Your task to perform on an android device: open wifi settings Image 0: 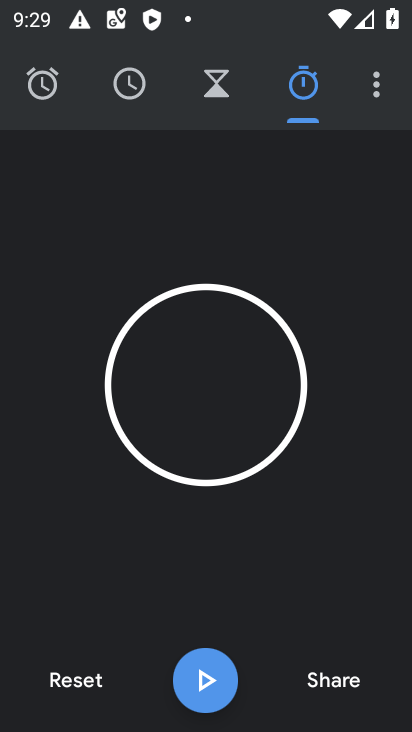
Step 0: press home button
Your task to perform on an android device: open wifi settings Image 1: 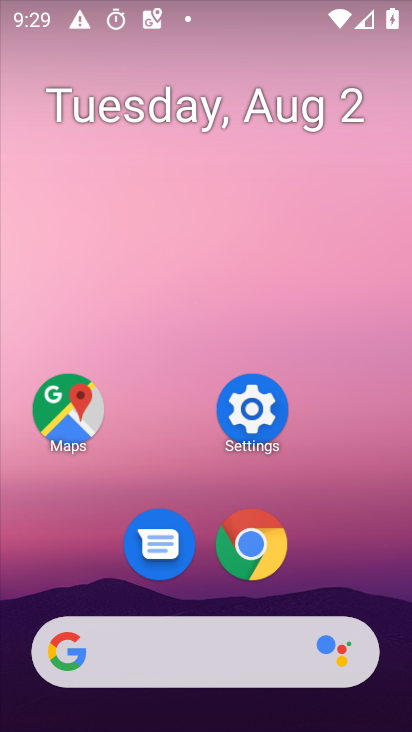
Step 1: click (265, 419)
Your task to perform on an android device: open wifi settings Image 2: 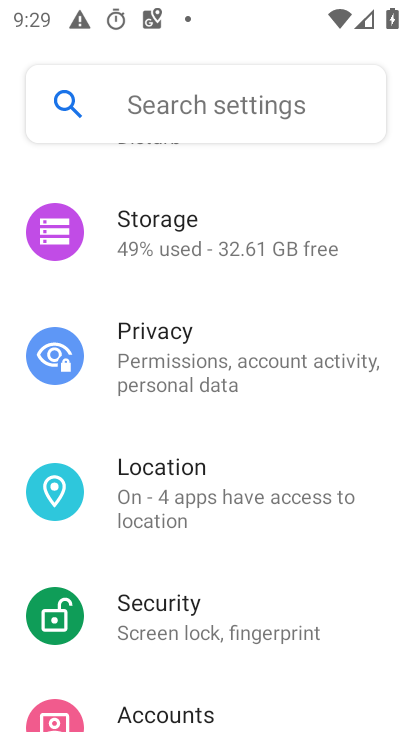
Step 2: drag from (328, 182) to (298, 627)
Your task to perform on an android device: open wifi settings Image 3: 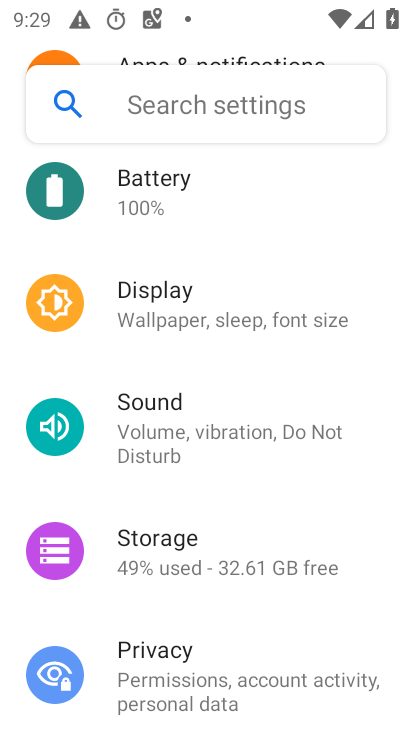
Step 3: drag from (299, 212) to (278, 648)
Your task to perform on an android device: open wifi settings Image 4: 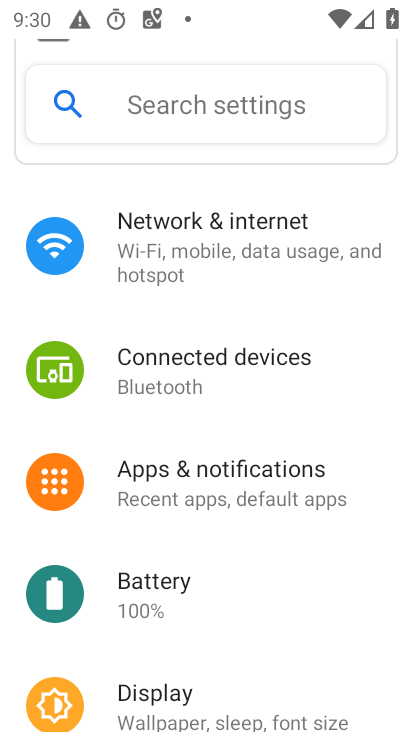
Step 4: click (247, 251)
Your task to perform on an android device: open wifi settings Image 5: 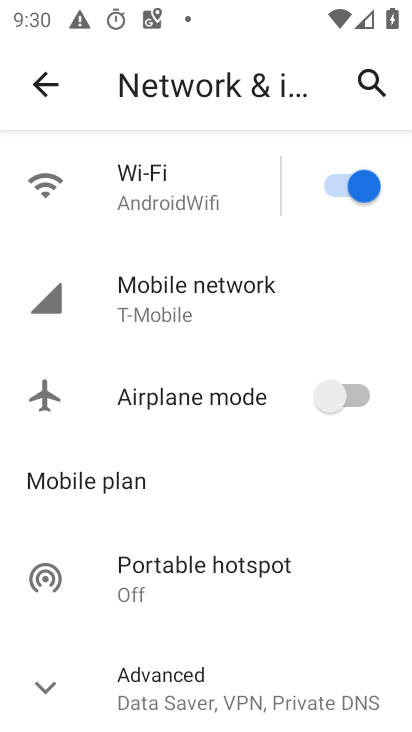
Step 5: click (177, 196)
Your task to perform on an android device: open wifi settings Image 6: 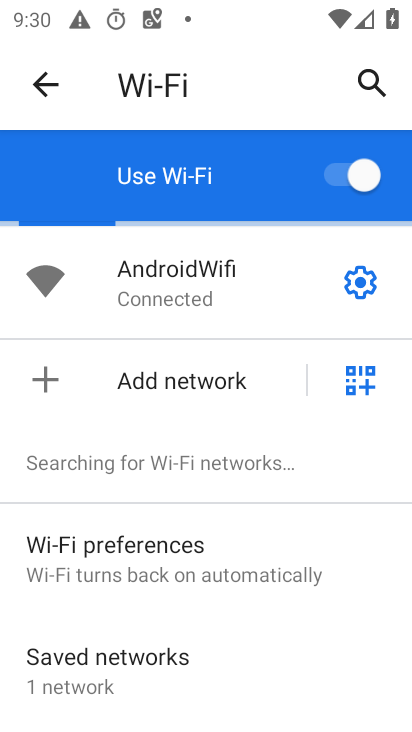
Step 6: task complete